Your task to perform on an android device: Open Google Chrome Image 0: 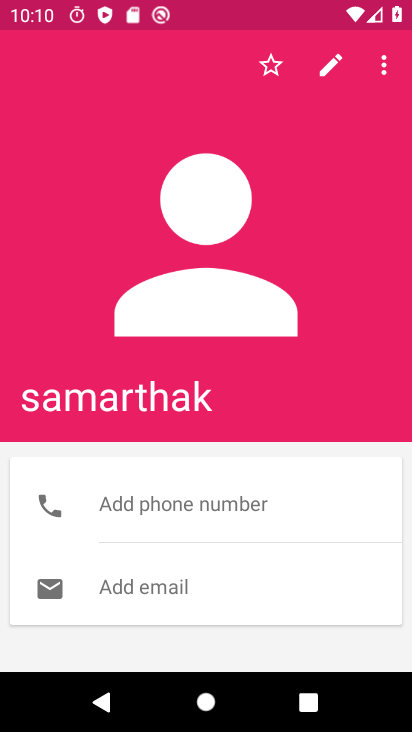
Step 0: press home button
Your task to perform on an android device: Open Google Chrome Image 1: 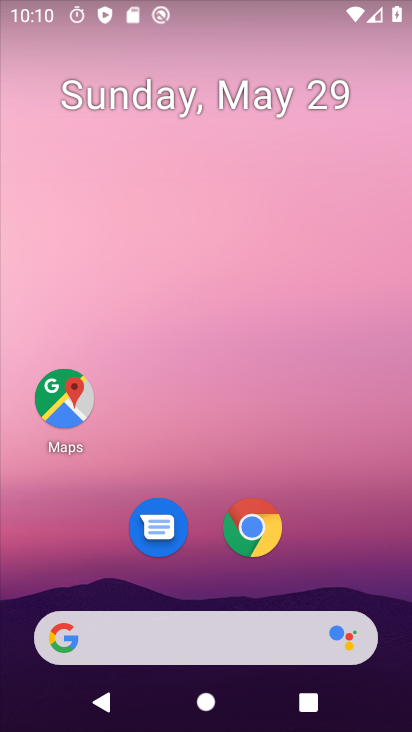
Step 1: drag from (328, 542) to (303, 89)
Your task to perform on an android device: Open Google Chrome Image 2: 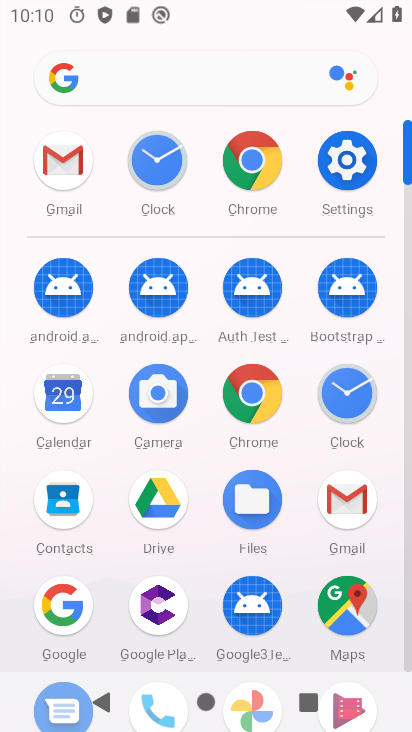
Step 2: click (256, 396)
Your task to perform on an android device: Open Google Chrome Image 3: 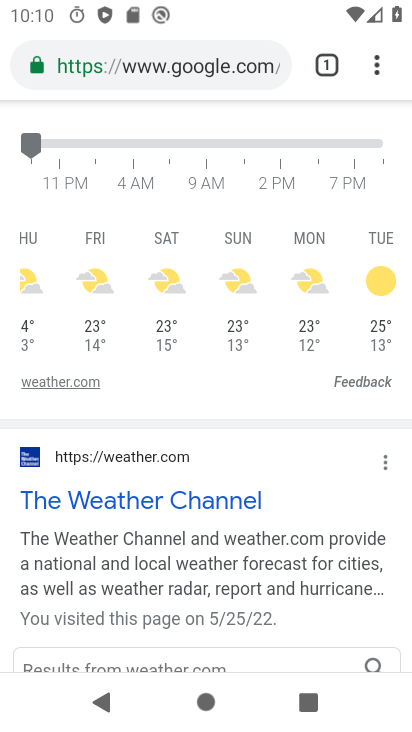
Step 3: task complete